Your task to perform on an android device: set the stopwatch Image 0: 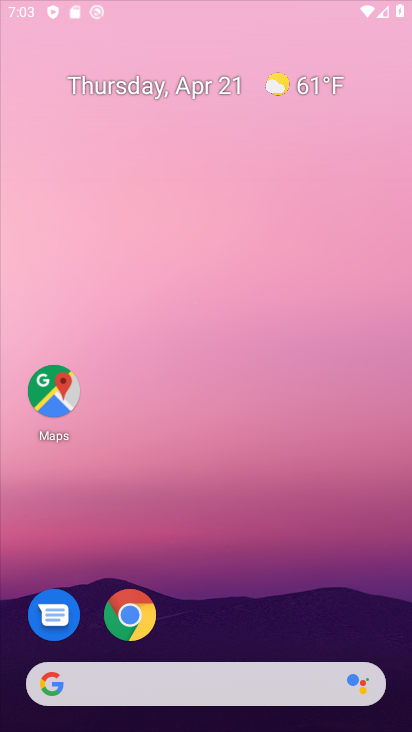
Step 0: click (301, 6)
Your task to perform on an android device: set the stopwatch Image 1: 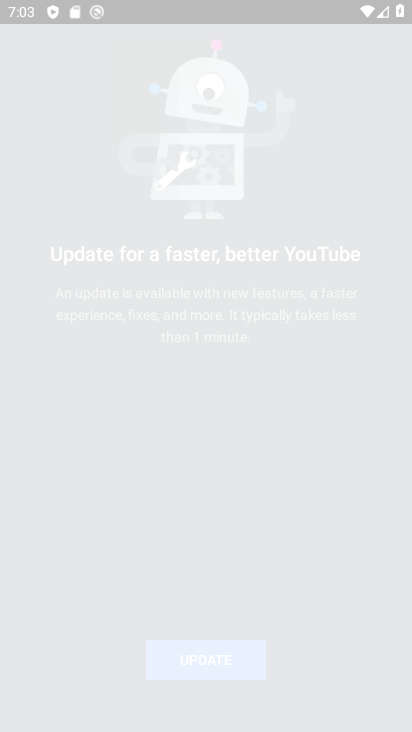
Step 1: drag from (190, 646) to (232, 163)
Your task to perform on an android device: set the stopwatch Image 2: 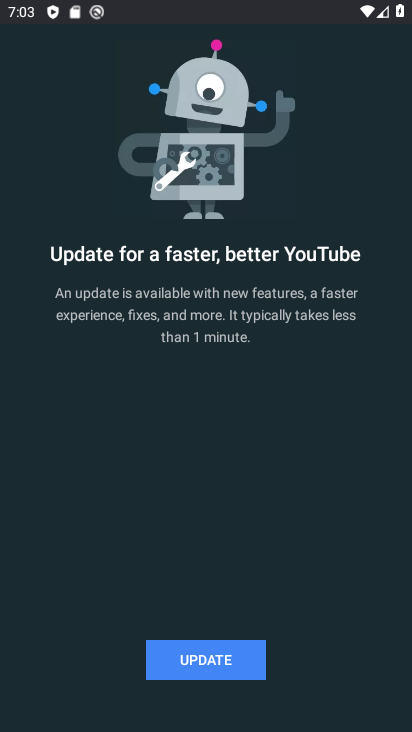
Step 2: press home button
Your task to perform on an android device: set the stopwatch Image 3: 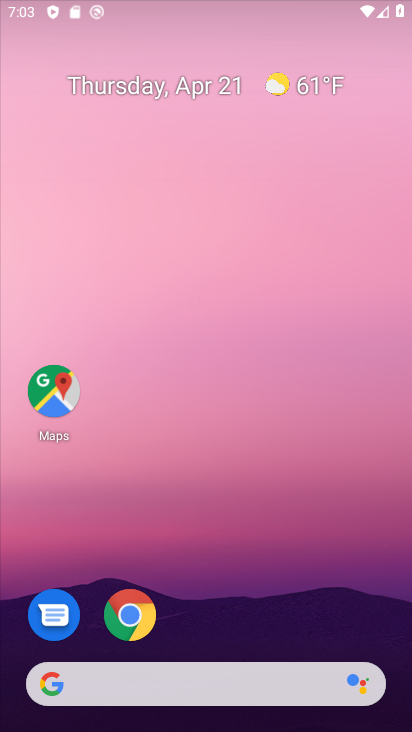
Step 3: drag from (244, 629) to (363, 73)
Your task to perform on an android device: set the stopwatch Image 4: 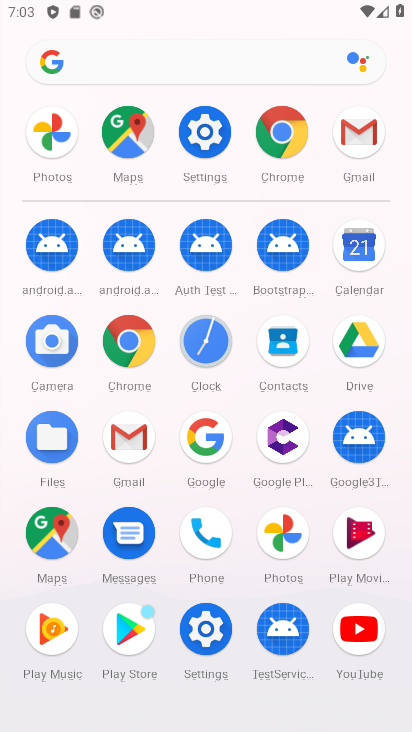
Step 4: click (206, 351)
Your task to perform on an android device: set the stopwatch Image 5: 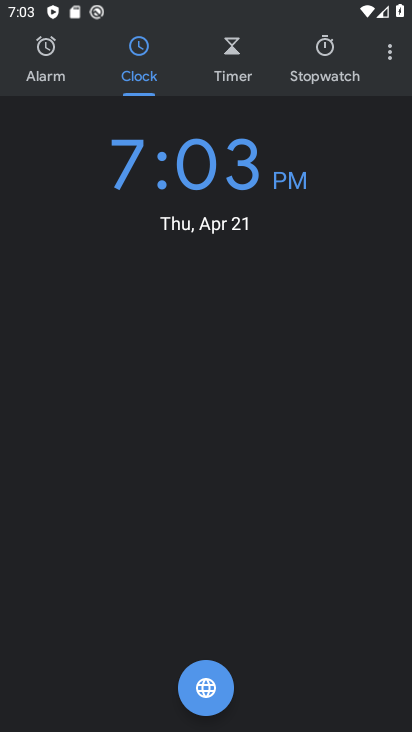
Step 5: click (323, 55)
Your task to perform on an android device: set the stopwatch Image 6: 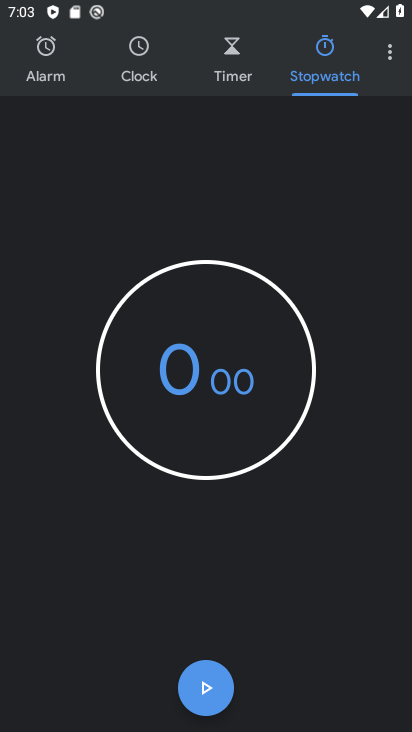
Step 6: click (212, 678)
Your task to perform on an android device: set the stopwatch Image 7: 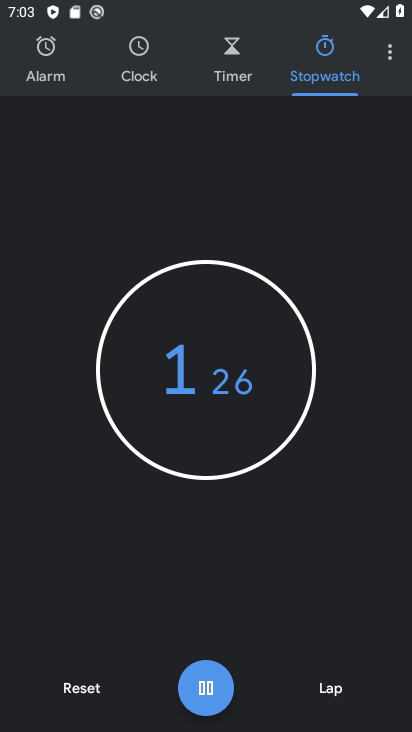
Step 7: task complete